Your task to perform on an android device: check the backup settings in the google photos Image 0: 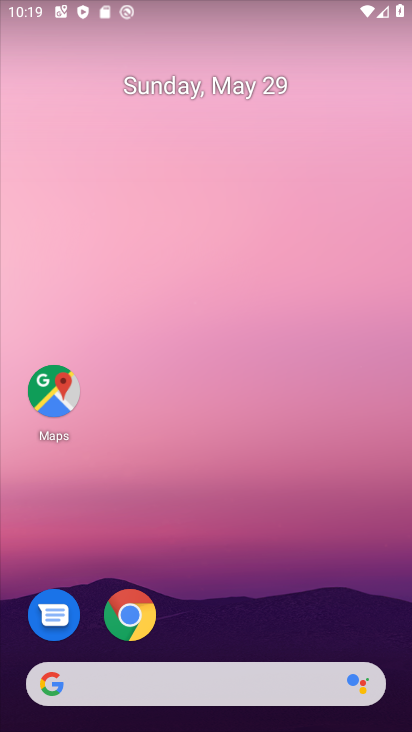
Step 0: drag from (235, 664) to (151, 6)
Your task to perform on an android device: check the backup settings in the google photos Image 1: 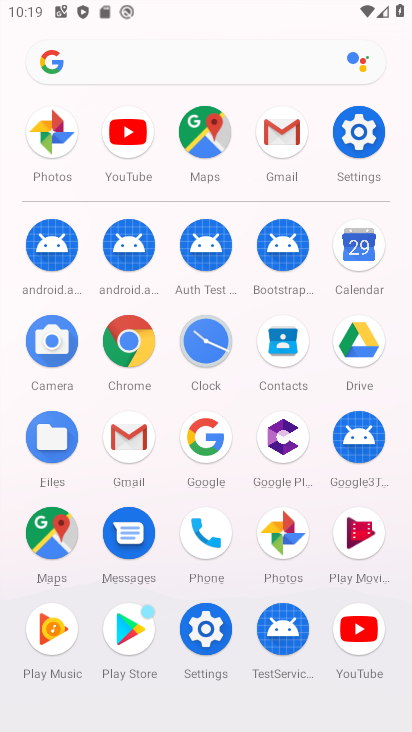
Step 1: click (214, 619)
Your task to perform on an android device: check the backup settings in the google photos Image 2: 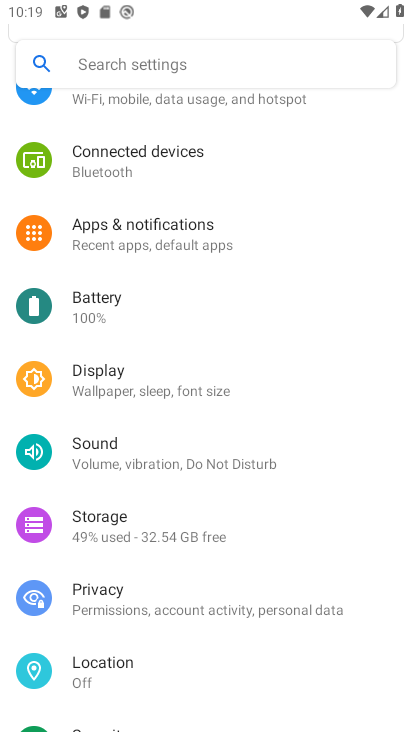
Step 2: press home button
Your task to perform on an android device: check the backup settings in the google photos Image 3: 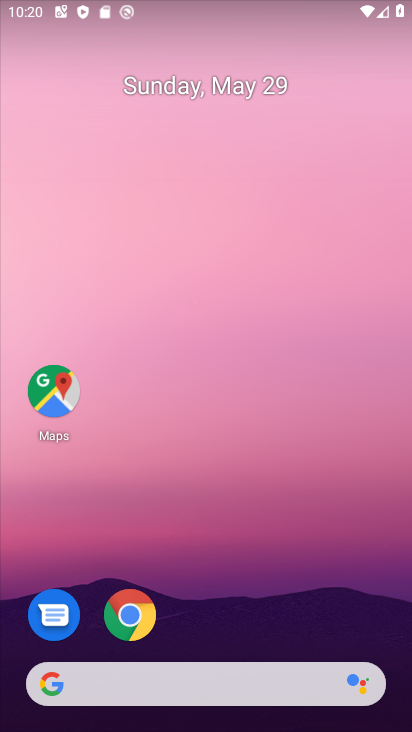
Step 3: drag from (231, 637) to (244, 0)
Your task to perform on an android device: check the backup settings in the google photos Image 4: 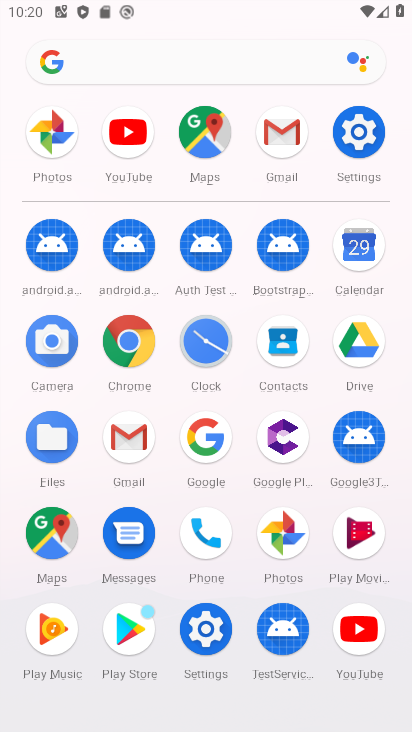
Step 4: click (279, 535)
Your task to perform on an android device: check the backup settings in the google photos Image 5: 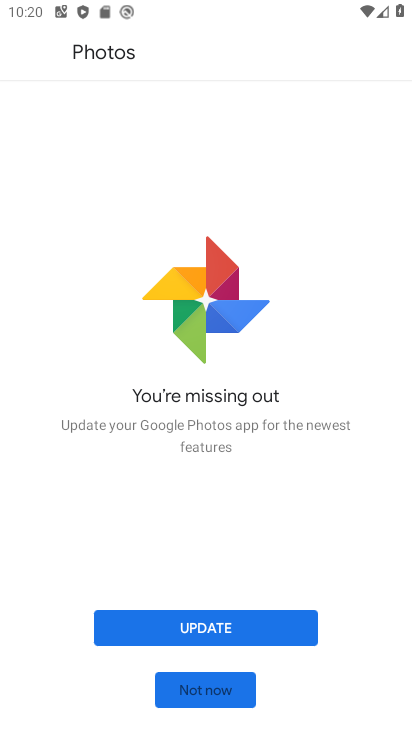
Step 5: click (162, 693)
Your task to perform on an android device: check the backup settings in the google photos Image 6: 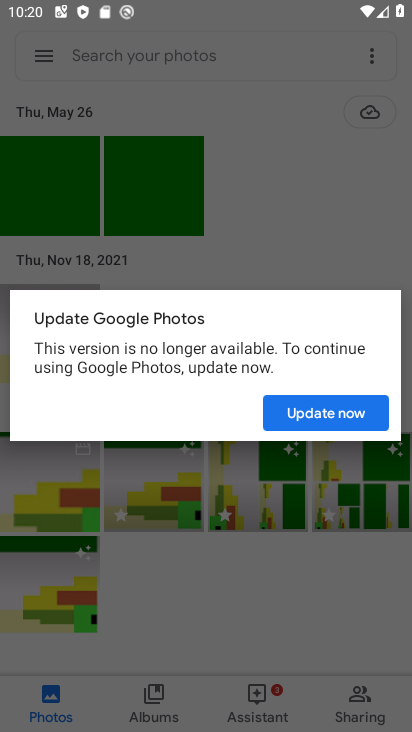
Step 6: click (322, 416)
Your task to perform on an android device: check the backup settings in the google photos Image 7: 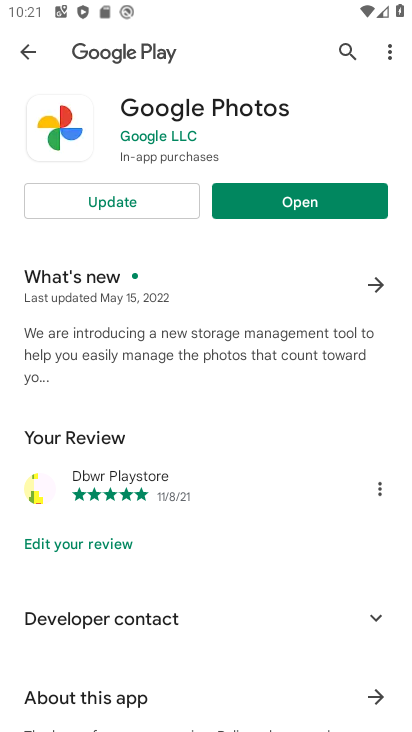
Step 7: click (236, 194)
Your task to perform on an android device: check the backup settings in the google photos Image 8: 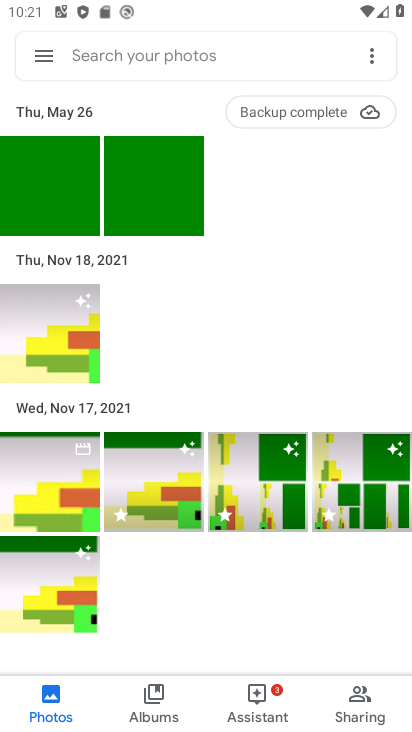
Step 8: click (34, 45)
Your task to perform on an android device: check the backup settings in the google photos Image 9: 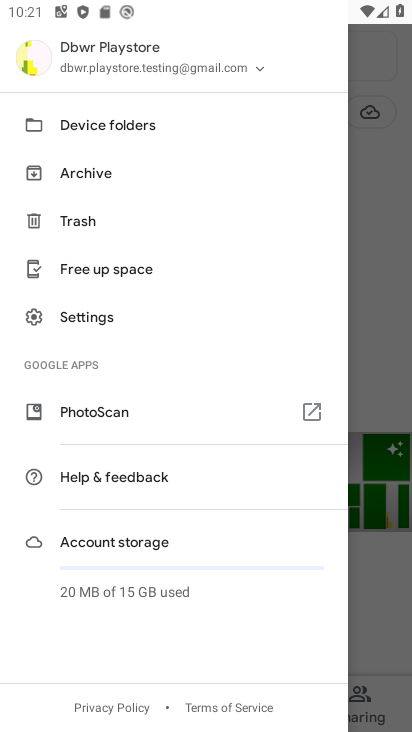
Step 9: click (87, 317)
Your task to perform on an android device: check the backup settings in the google photos Image 10: 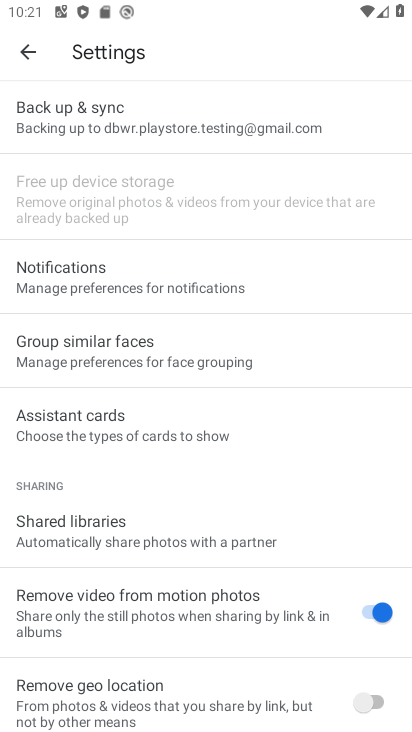
Step 10: click (95, 109)
Your task to perform on an android device: check the backup settings in the google photos Image 11: 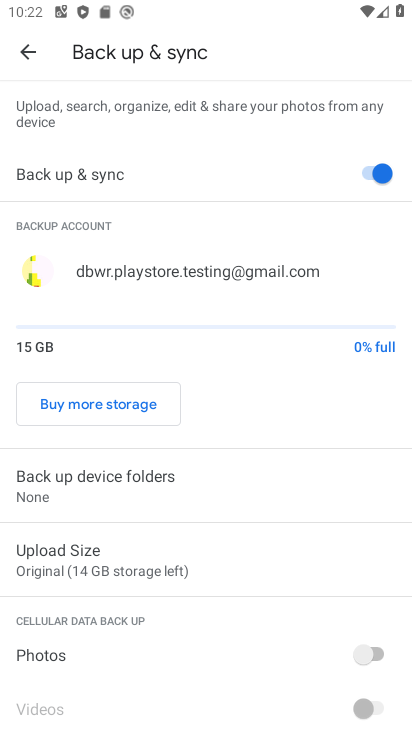
Step 11: task complete